Your task to perform on an android device: turn smart compose on in the gmail app Image 0: 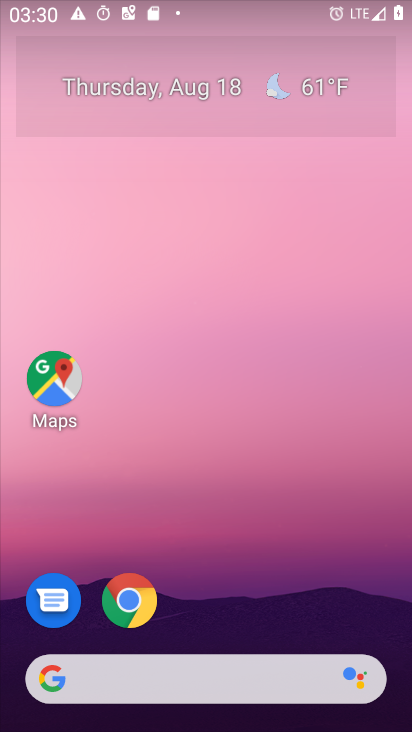
Step 0: drag from (211, 629) to (49, 30)
Your task to perform on an android device: turn smart compose on in the gmail app Image 1: 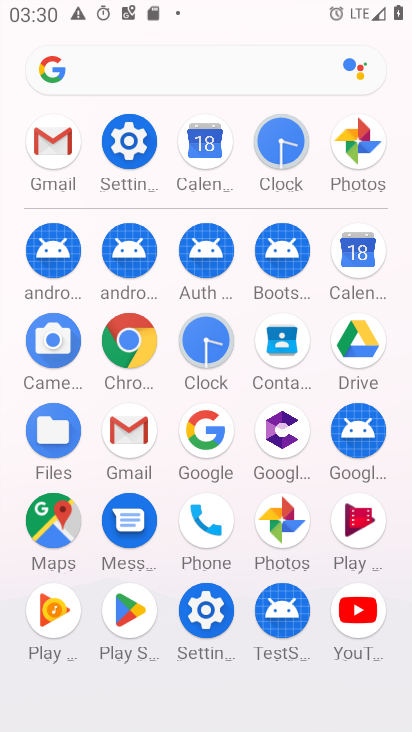
Step 1: click (56, 139)
Your task to perform on an android device: turn smart compose on in the gmail app Image 2: 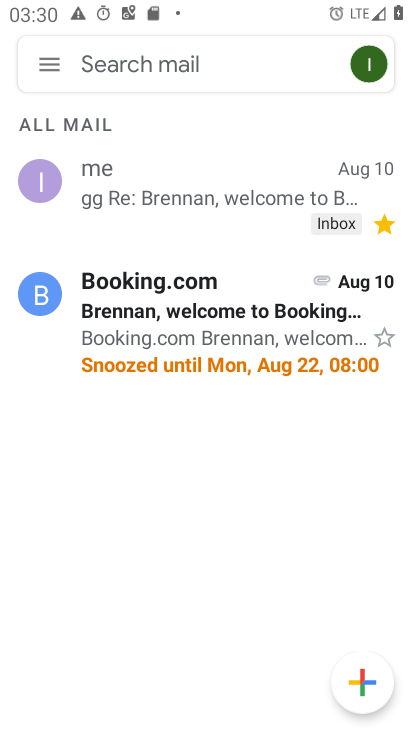
Step 2: click (45, 55)
Your task to perform on an android device: turn smart compose on in the gmail app Image 3: 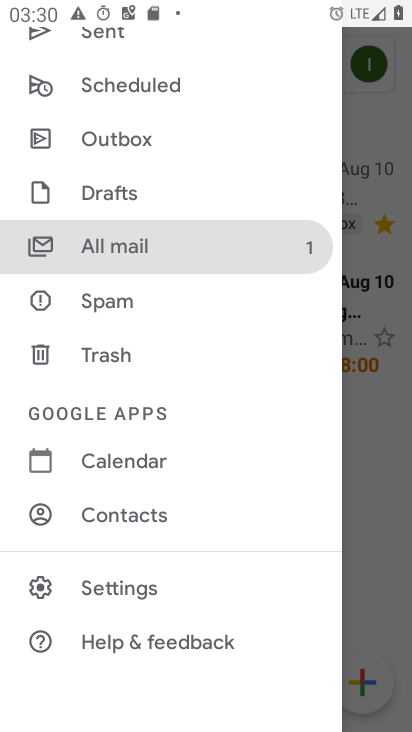
Step 3: click (119, 598)
Your task to perform on an android device: turn smart compose on in the gmail app Image 4: 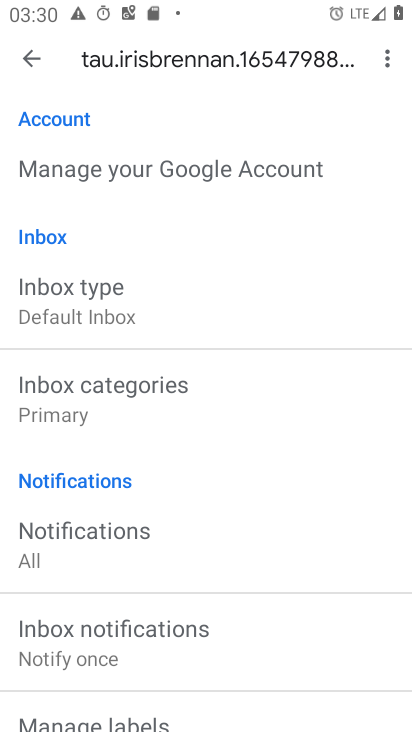
Step 4: task complete